Your task to perform on an android device: Open maps Image 0: 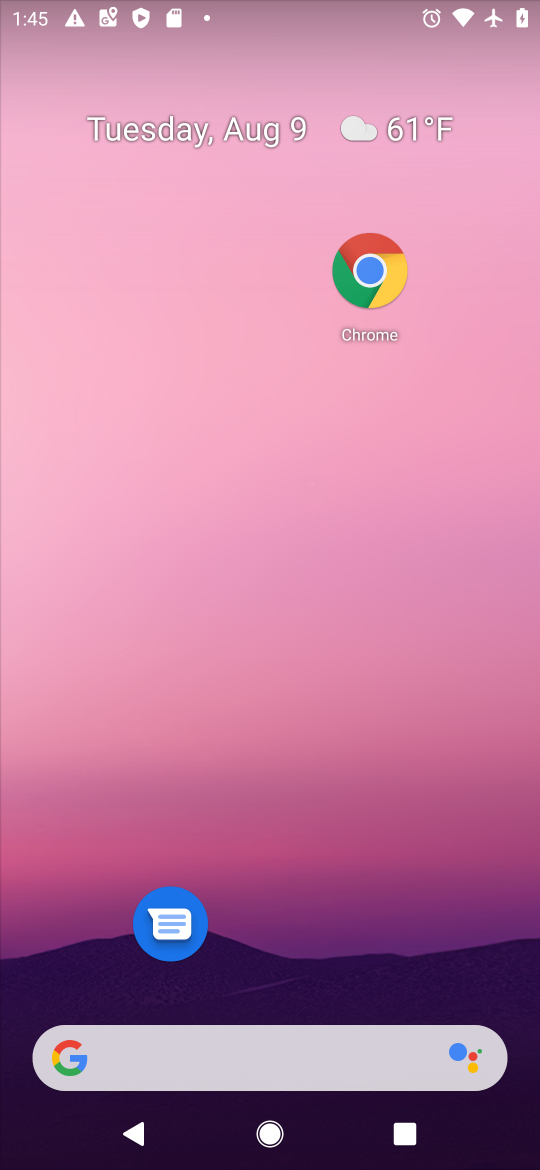
Step 0: drag from (283, 1011) to (268, 126)
Your task to perform on an android device: Open maps Image 1: 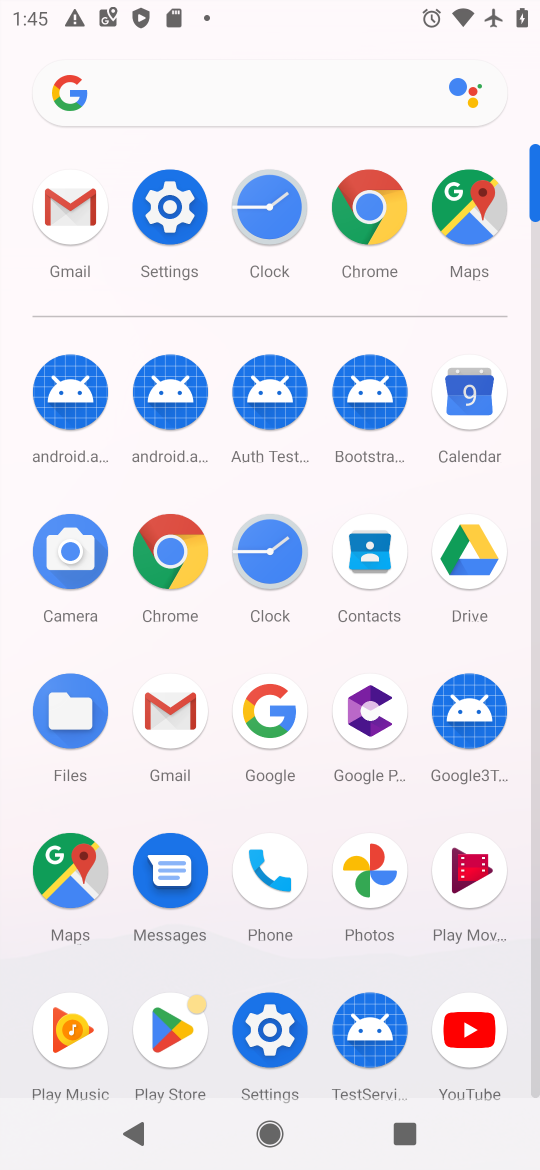
Step 1: click (76, 878)
Your task to perform on an android device: Open maps Image 2: 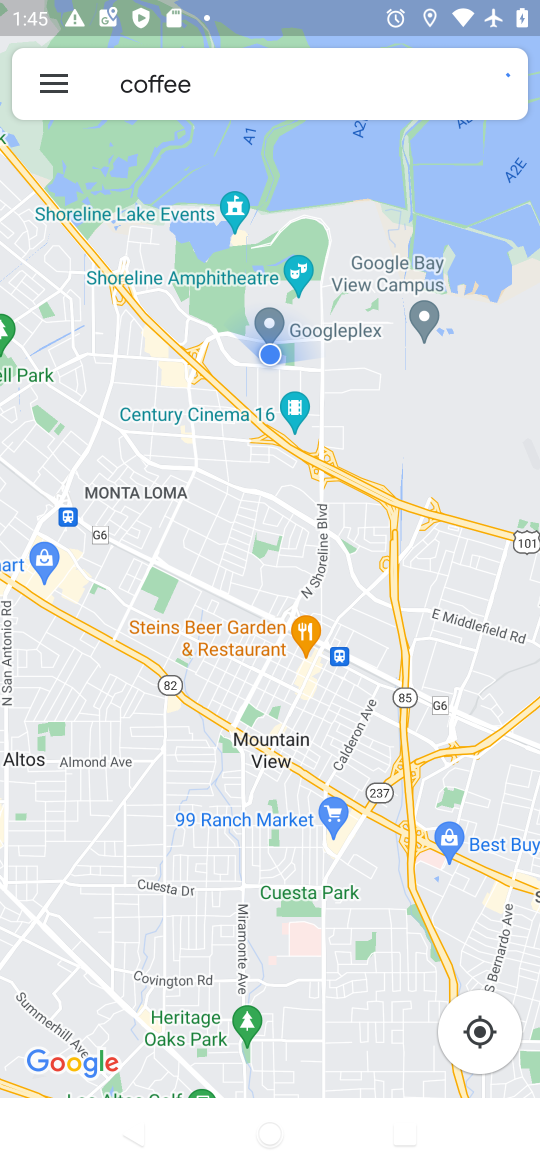
Step 2: task complete